Your task to perform on an android device: change notifications settings Image 0: 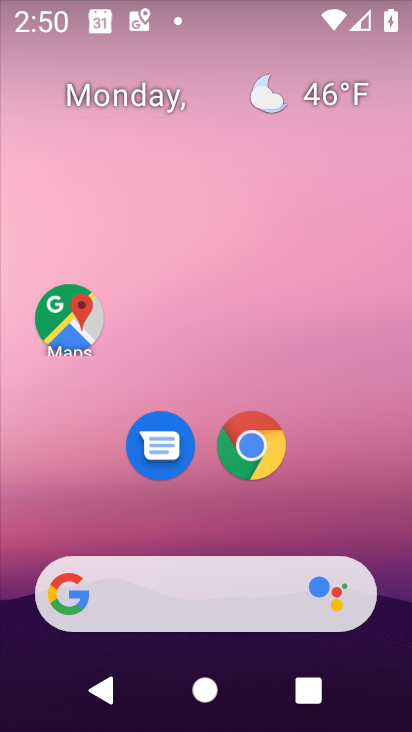
Step 0: drag from (296, 514) to (296, 130)
Your task to perform on an android device: change notifications settings Image 1: 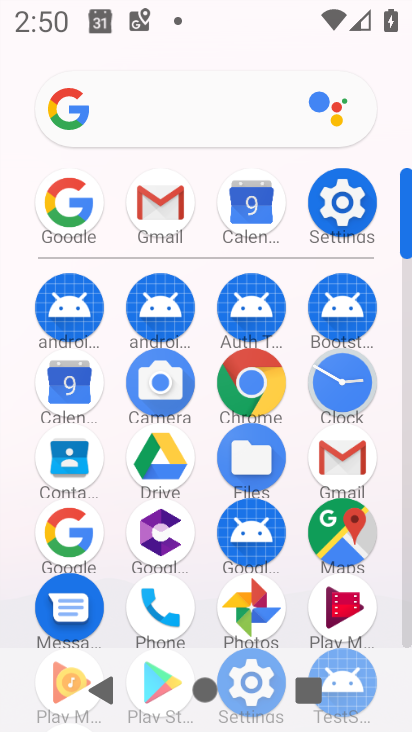
Step 1: click (354, 215)
Your task to perform on an android device: change notifications settings Image 2: 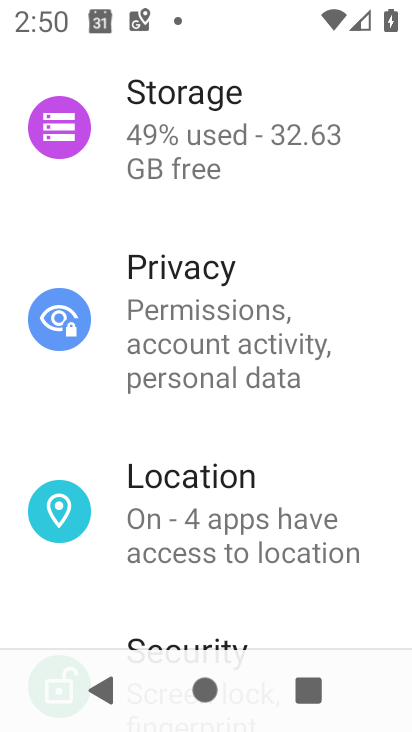
Step 2: drag from (283, 301) to (260, 609)
Your task to perform on an android device: change notifications settings Image 3: 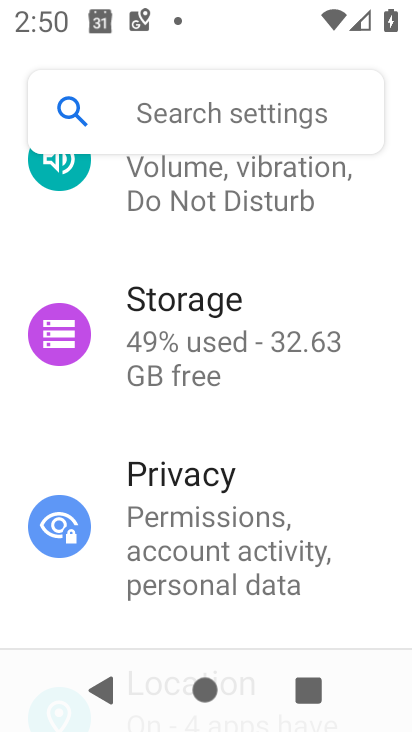
Step 3: drag from (293, 246) to (287, 595)
Your task to perform on an android device: change notifications settings Image 4: 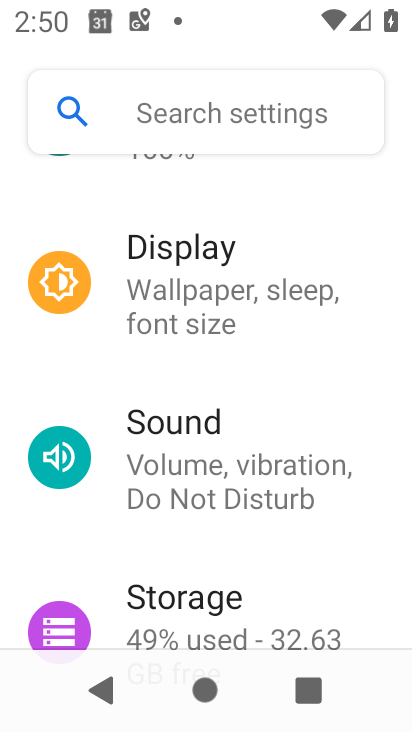
Step 4: drag from (294, 319) to (273, 636)
Your task to perform on an android device: change notifications settings Image 5: 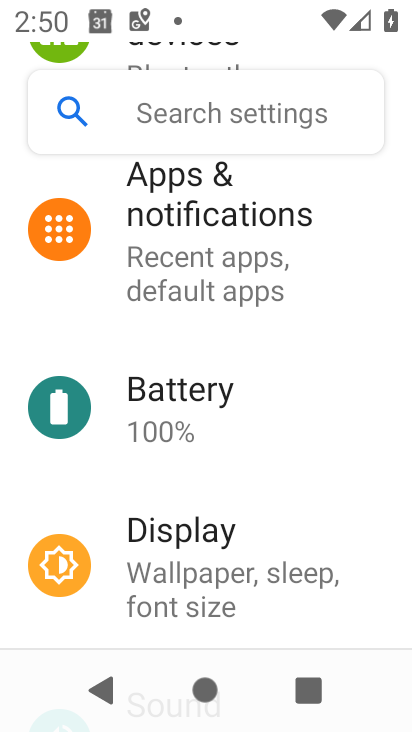
Step 5: drag from (258, 310) to (255, 528)
Your task to perform on an android device: change notifications settings Image 6: 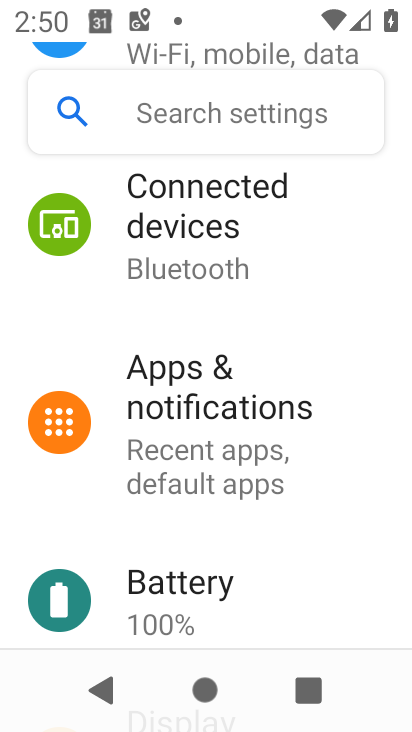
Step 6: click (257, 487)
Your task to perform on an android device: change notifications settings Image 7: 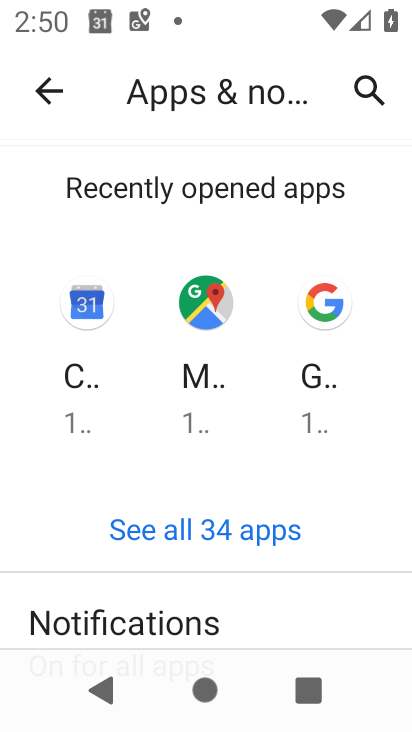
Step 7: drag from (262, 605) to (264, 245)
Your task to perform on an android device: change notifications settings Image 8: 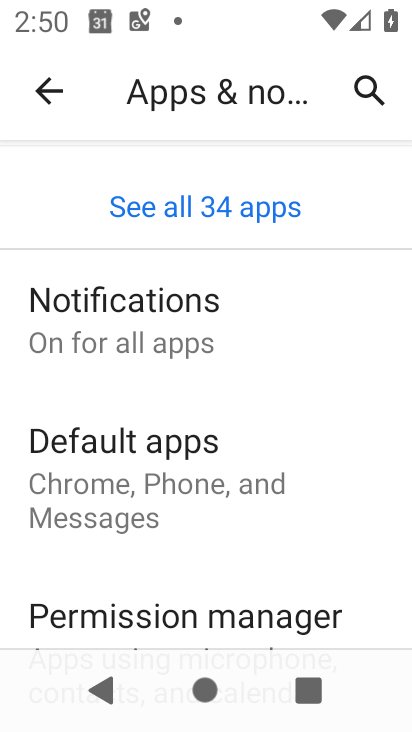
Step 8: click (205, 337)
Your task to perform on an android device: change notifications settings Image 9: 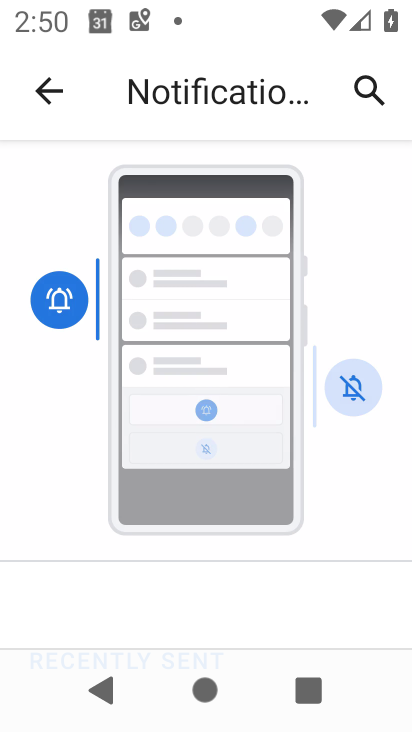
Step 9: drag from (269, 569) to (275, 112)
Your task to perform on an android device: change notifications settings Image 10: 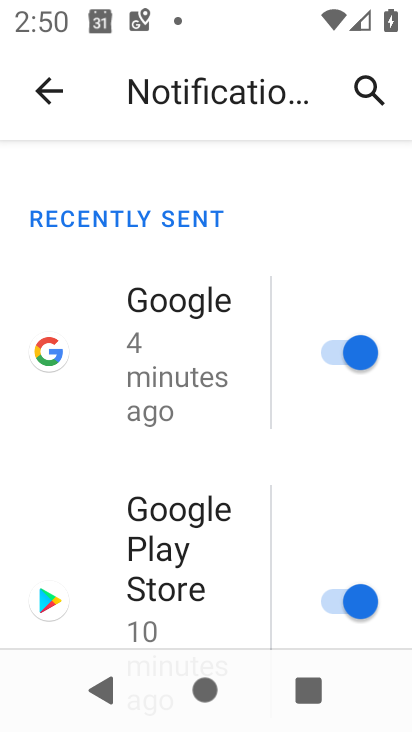
Step 10: drag from (254, 597) to (256, 253)
Your task to perform on an android device: change notifications settings Image 11: 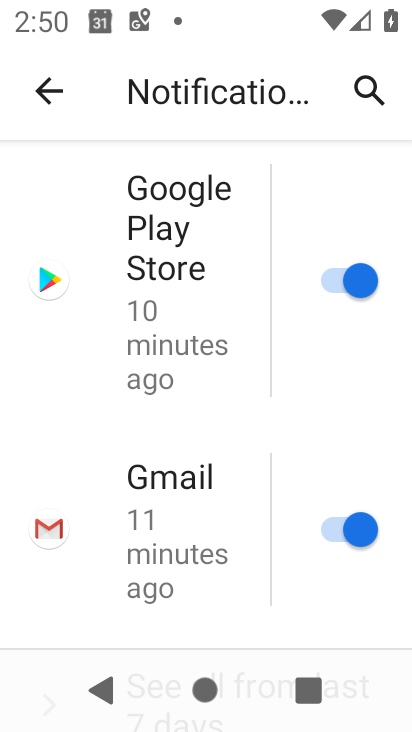
Step 11: drag from (214, 606) to (214, 294)
Your task to perform on an android device: change notifications settings Image 12: 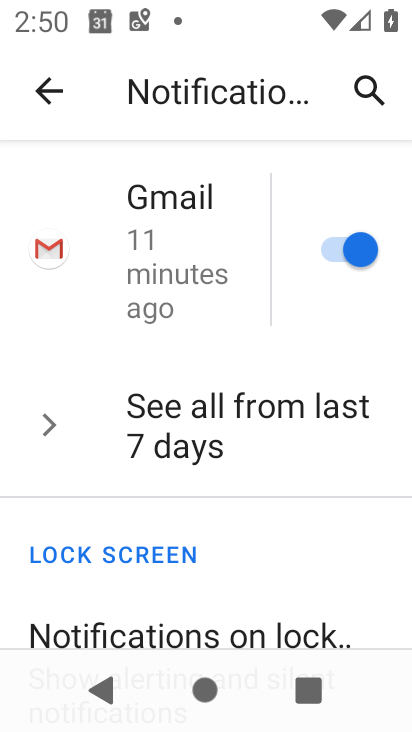
Step 12: drag from (171, 571) to (153, 244)
Your task to perform on an android device: change notifications settings Image 13: 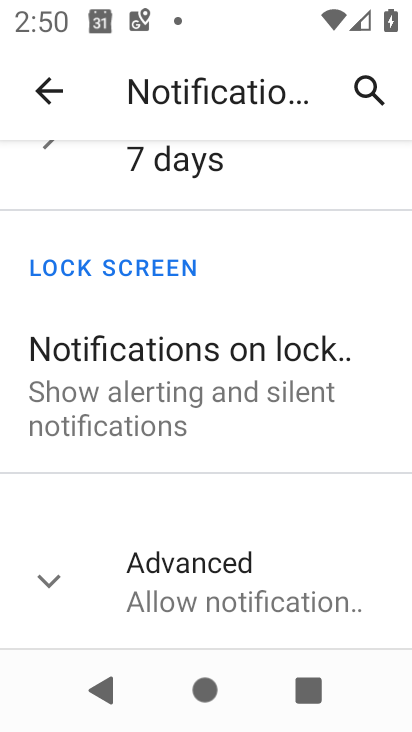
Step 13: drag from (160, 507) to (162, 203)
Your task to perform on an android device: change notifications settings Image 14: 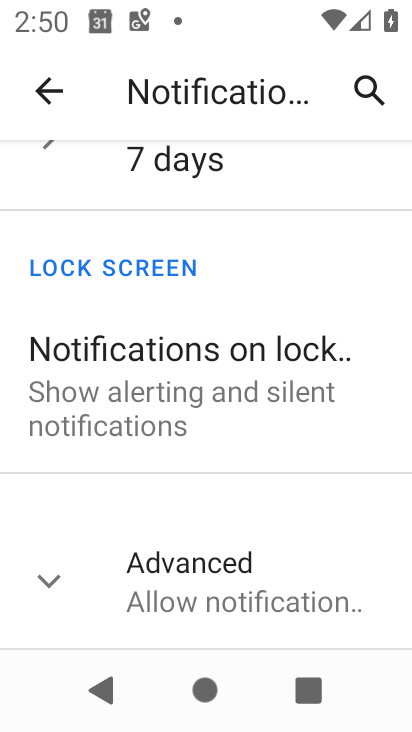
Step 14: click (53, 581)
Your task to perform on an android device: change notifications settings Image 15: 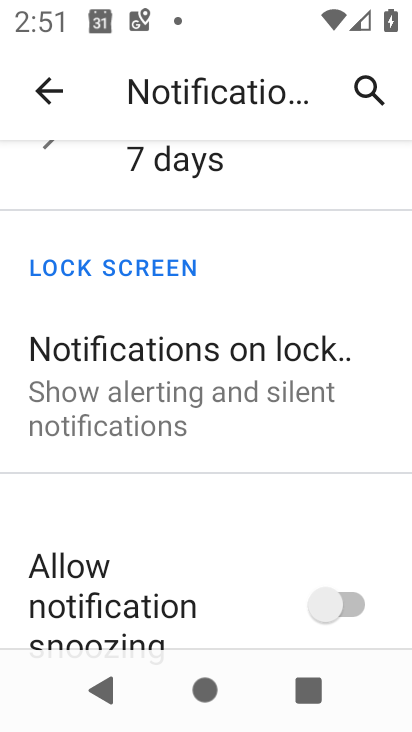
Step 15: task complete